Your task to perform on an android device: Open Chrome and go to the settings page Image 0: 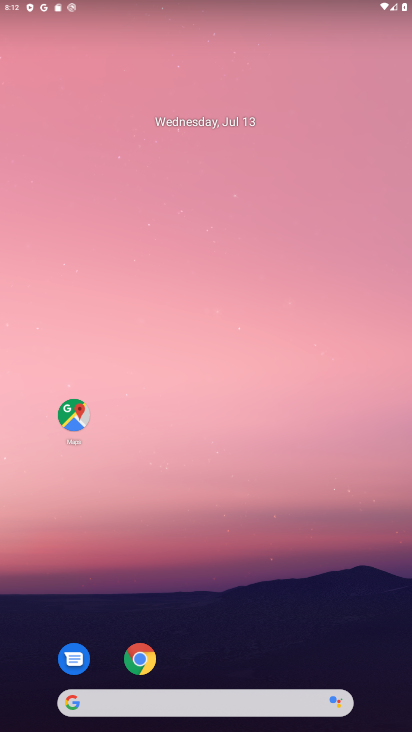
Step 0: click (137, 671)
Your task to perform on an android device: Open Chrome and go to the settings page Image 1: 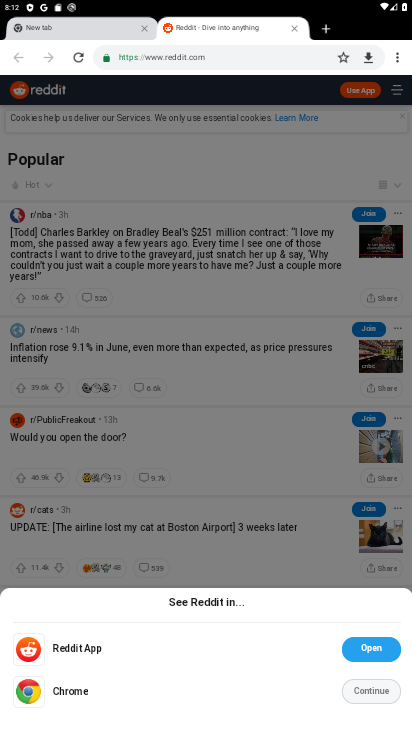
Step 1: click (73, 684)
Your task to perform on an android device: Open Chrome and go to the settings page Image 2: 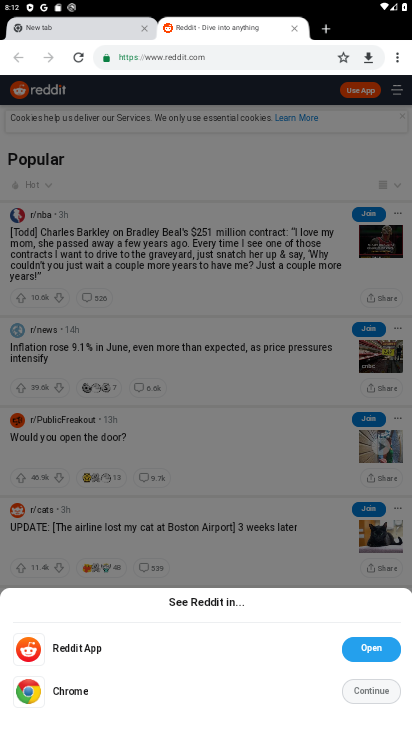
Step 2: click (73, 684)
Your task to perform on an android device: Open Chrome and go to the settings page Image 3: 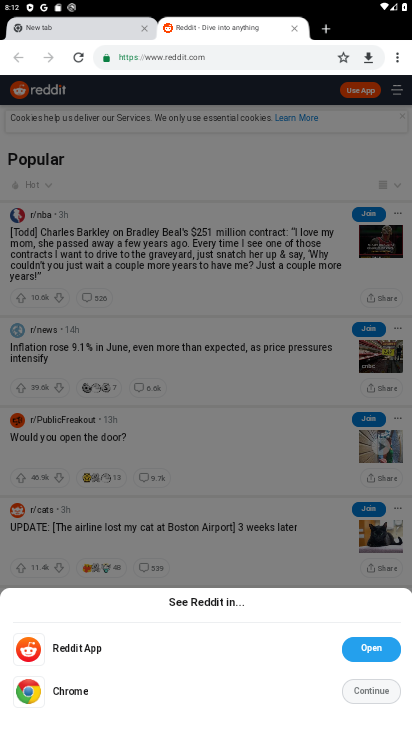
Step 3: click (73, 684)
Your task to perform on an android device: Open Chrome and go to the settings page Image 4: 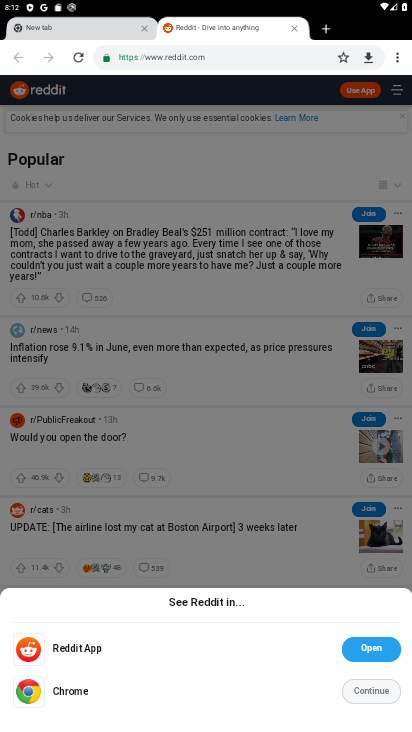
Step 4: click (391, 63)
Your task to perform on an android device: Open Chrome and go to the settings page Image 5: 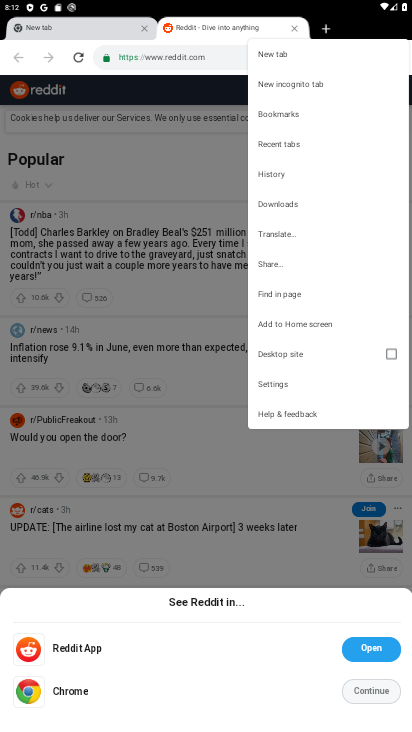
Step 5: click (280, 385)
Your task to perform on an android device: Open Chrome and go to the settings page Image 6: 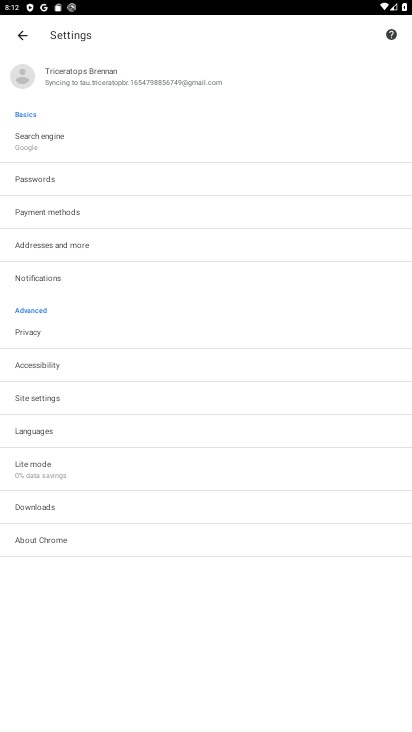
Step 6: task complete